Your task to perform on an android device: find photos in the google photos app Image 0: 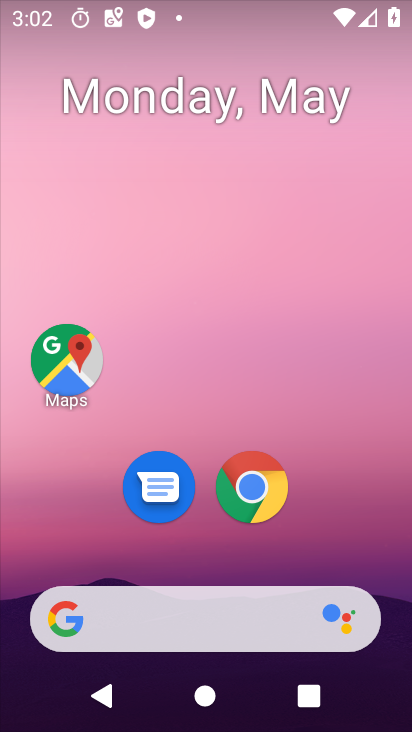
Step 0: drag from (227, 564) to (373, 70)
Your task to perform on an android device: find photos in the google photos app Image 1: 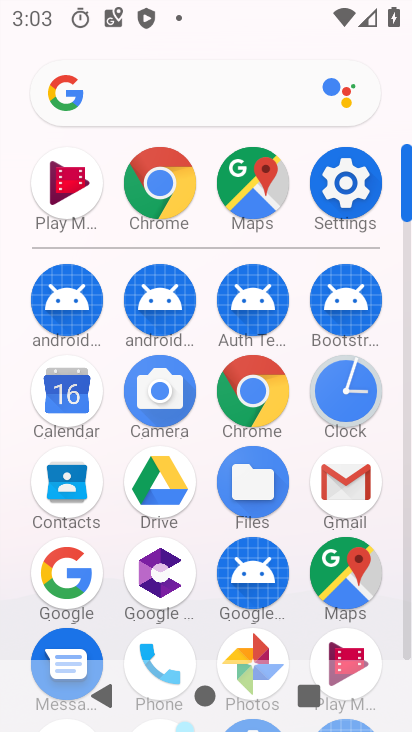
Step 1: drag from (246, 601) to (306, 201)
Your task to perform on an android device: find photos in the google photos app Image 2: 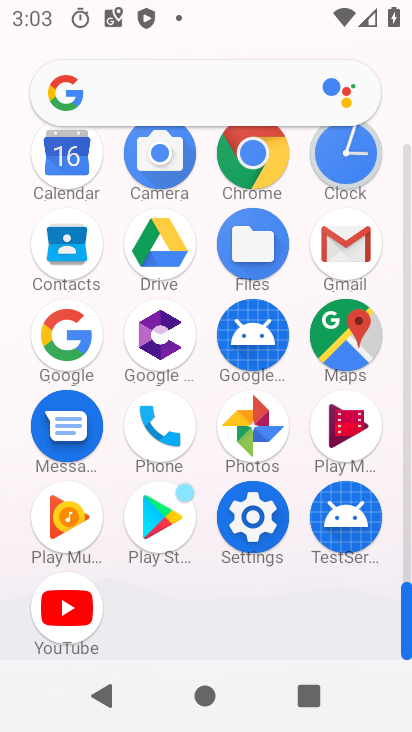
Step 2: click (255, 422)
Your task to perform on an android device: find photos in the google photos app Image 3: 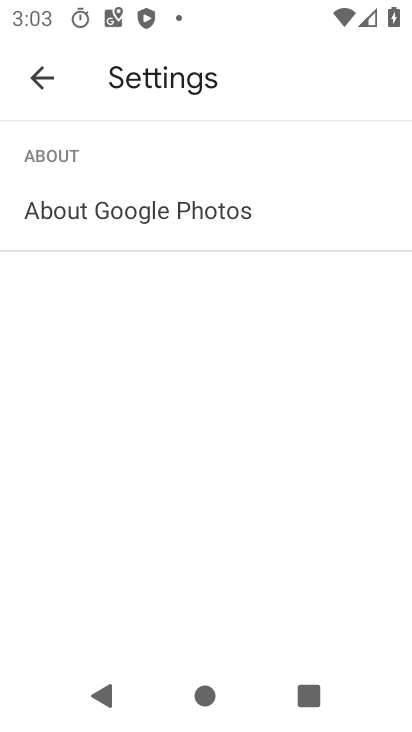
Step 3: click (39, 88)
Your task to perform on an android device: find photos in the google photos app Image 4: 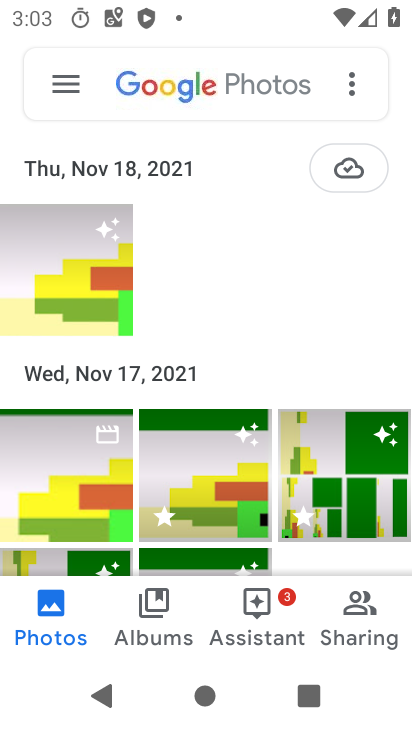
Step 4: task complete